Your task to perform on an android device: check android version Image 0: 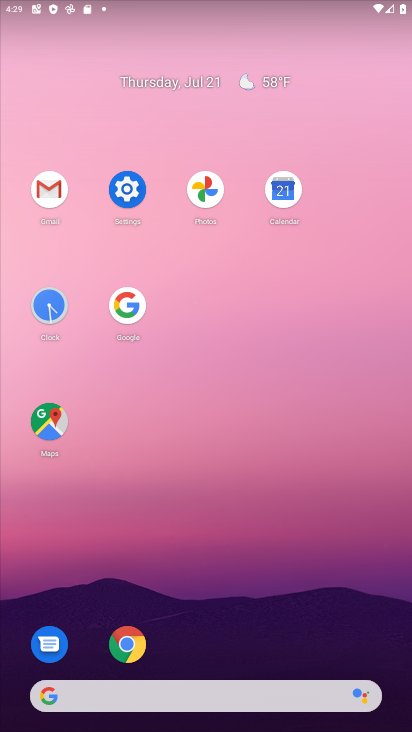
Step 0: click (120, 192)
Your task to perform on an android device: check android version Image 1: 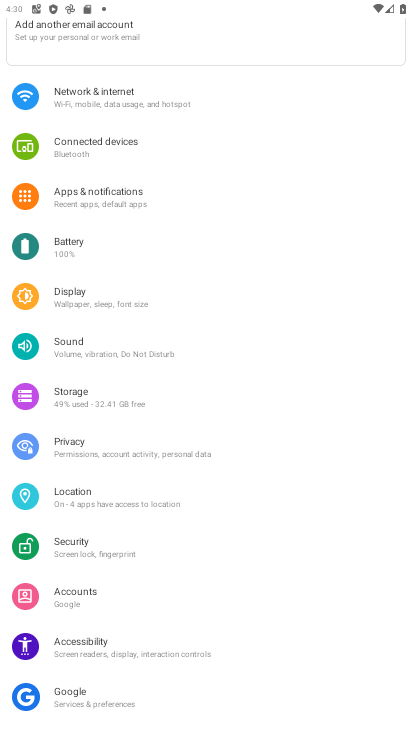
Step 1: drag from (274, 617) to (271, 227)
Your task to perform on an android device: check android version Image 2: 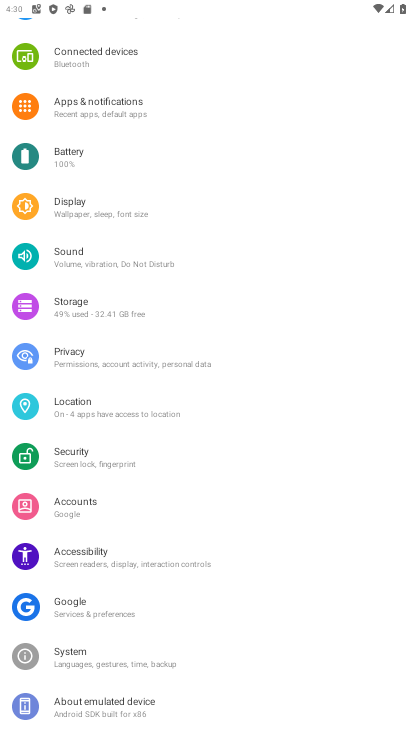
Step 2: click (164, 693)
Your task to perform on an android device: check android version Image 3: 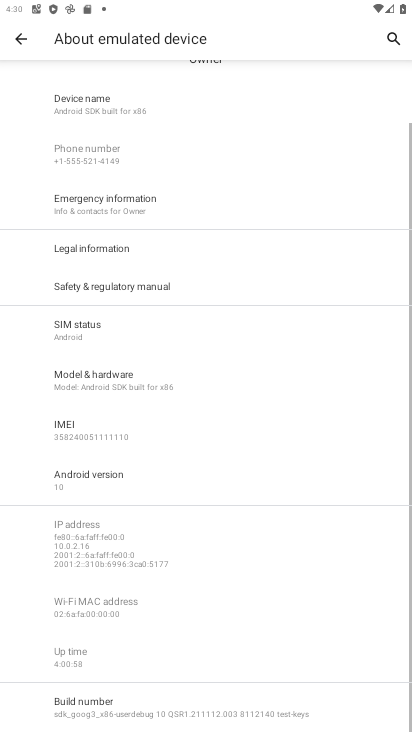
Step 3: click (174, 460)
Your task to perform on an android device: check android version Image 4: 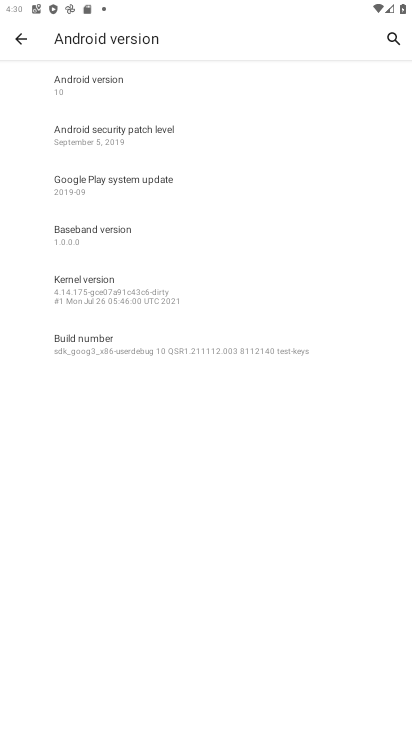
Step 4: click (219, 71)
Your task to perform on an android device: check android version Image 5: 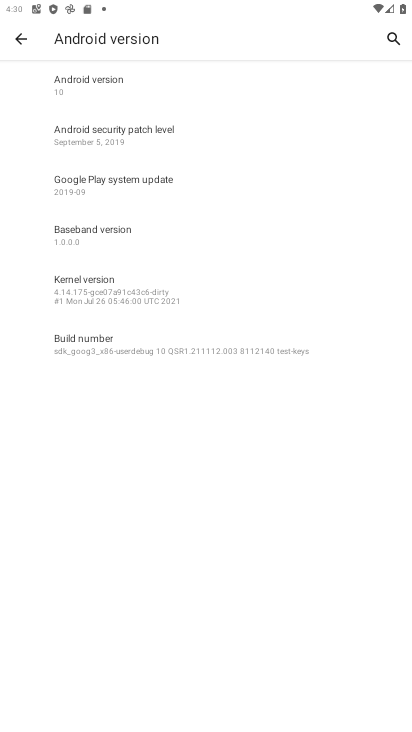
Step 5: task complete